Your task to perform on an android device: install app "Gboard" Image 0: 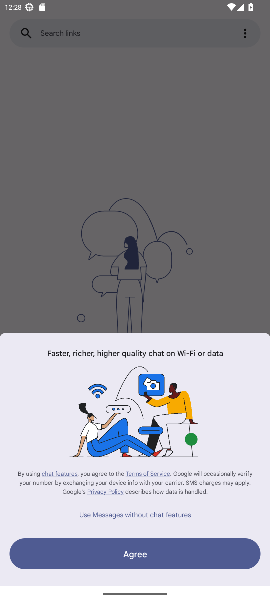
Step 0: press home button
Your task to perform on an android device: install app "Gboard" Image 1: 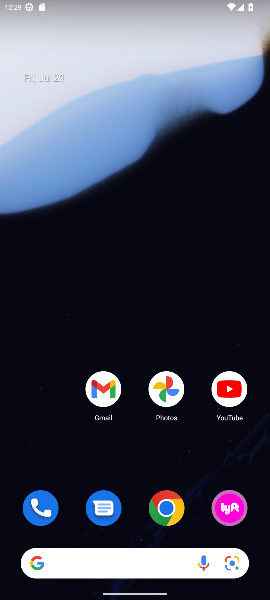
Step 1: drag from (188, 541) to (215, 25)
Your task to perform on an android device: install app "Gboard" Image 2: 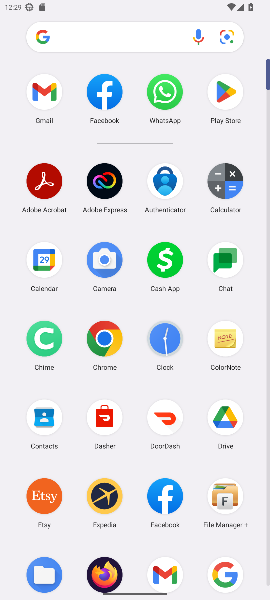
Step 2: click (220, 90)
Your task to perform on an android device: install app "Gboard" Image 3: 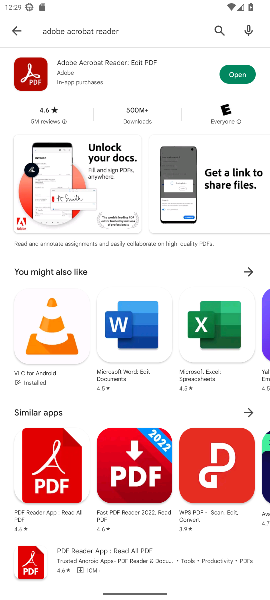
Step 3: click (219, 31)
Your task to perform on an android device: install app "Gboard" Image 4: 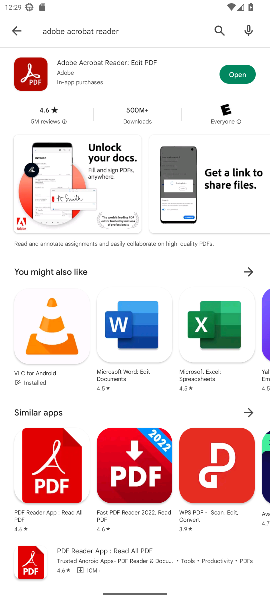
Step 4: click (219, 31)
Your task to perform on an android device: install app "Gboard" Image 5: 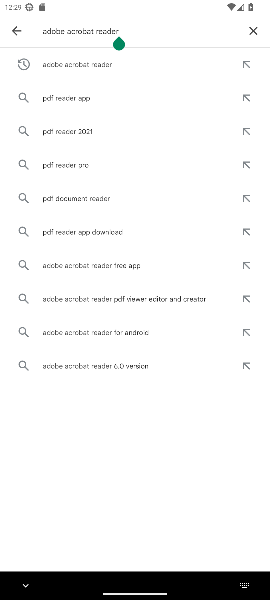
Step 5: click (251, 27)
Your task to perform on an android device: install app "Gboard" Image 6: 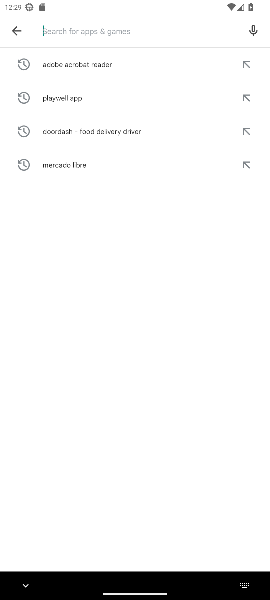
Step 6: type "gboard"
Your task to perform on an android device: install app "Gboard" Image 7: 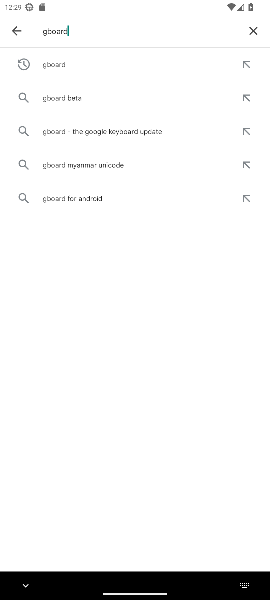
Step 7: click (65, 63)
Your task to perform on an android device: install app "Gboard" Image 8: 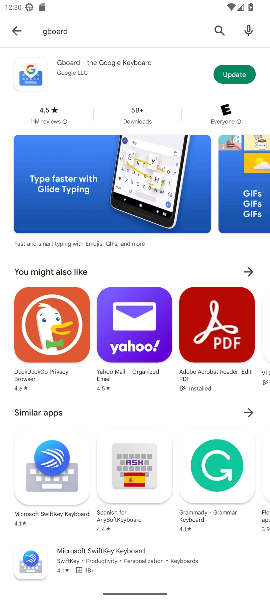
Step 8: task complete